Your task to perform on an android device: open app "Messenger Lite" (install if not already installed) Image 0: 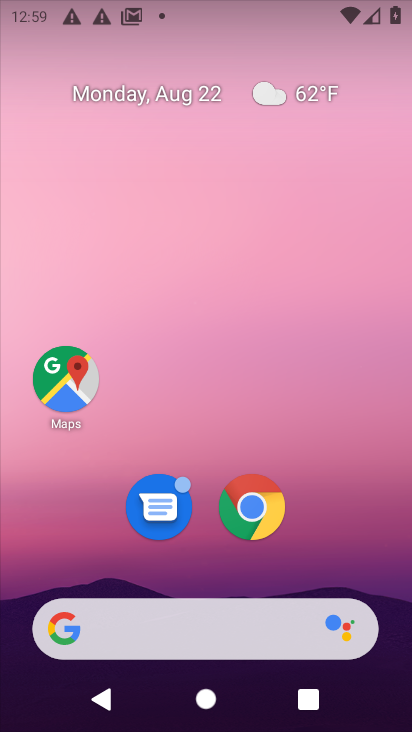
Step 0: drag from (380, 596) to (359, 167)
Your task to perform on an android device: open app "Messenger Lite" (install if not already installed) Image 1: 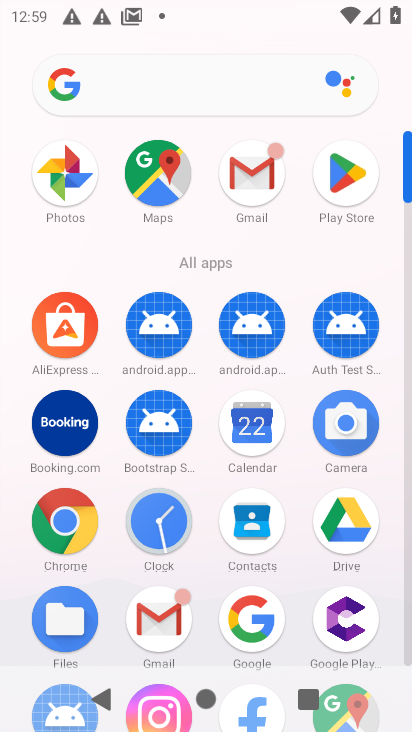
Step 1: click (408, 619)
Your task to perform on an android device: open app "Messenger Lite" (install if not already installed) Image 2: 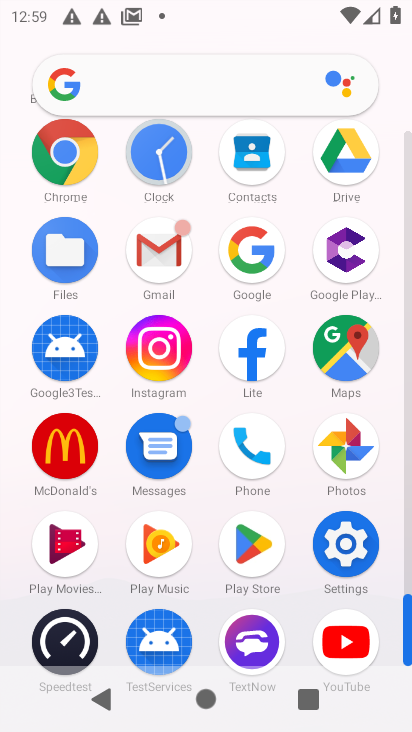
Step 2: click (258, 546)
Your task to perform on an android device: open app "Messenger Lite" (install if not already installed) Image 3: 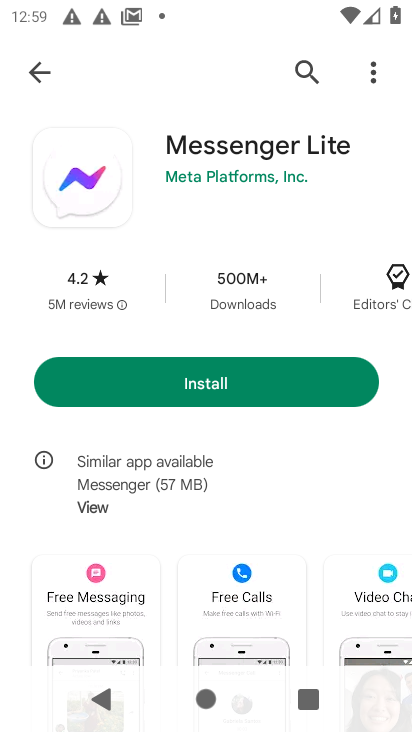
Step 3: click (301, 67)
Your task to perform on an android device: open app "Messenger Lite" (install if not already installed) Image 4: 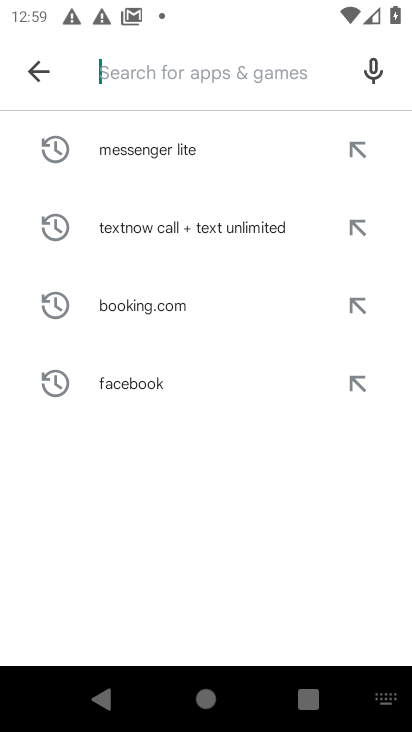
Step 4: type "Messenger Lite"
Your task to perform on an android device: open app "Messenger Lite" (install if not already installed) Image 5: 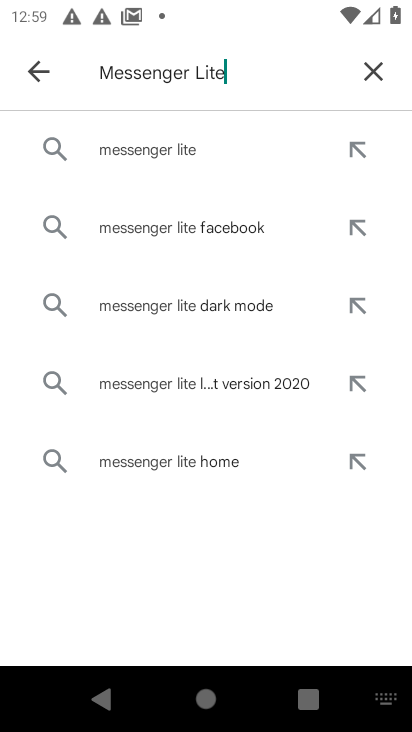
Step 5: click (145, 153)
Your task to perform on an android device: open app "Messenger Lite" (install if not already installed) Image 6: 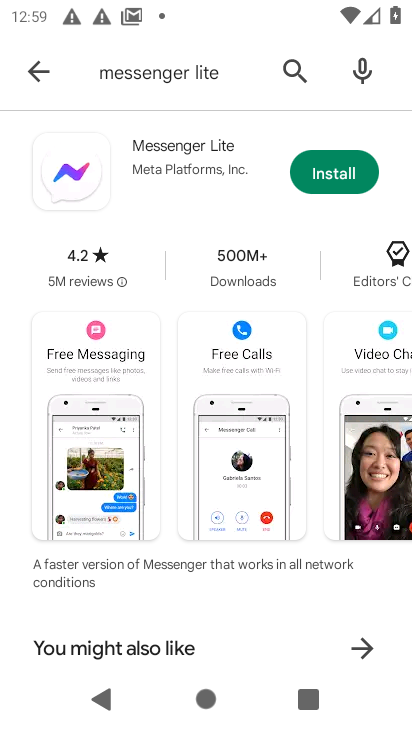
Step 6: click (341, 173)
Your task to perform on an android device: open app "Messenger Lite" (install if not already installed) Image 7: 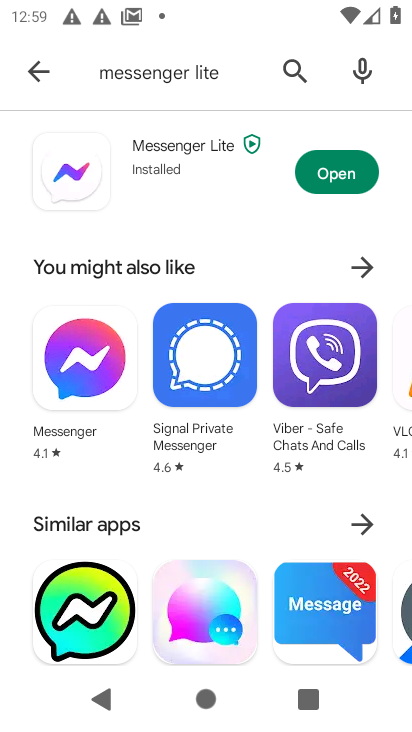
Step 7: click (339, 174)
Your task to perform on an android device: open app "Messenger Lite" (install if not already installed) Image 8: 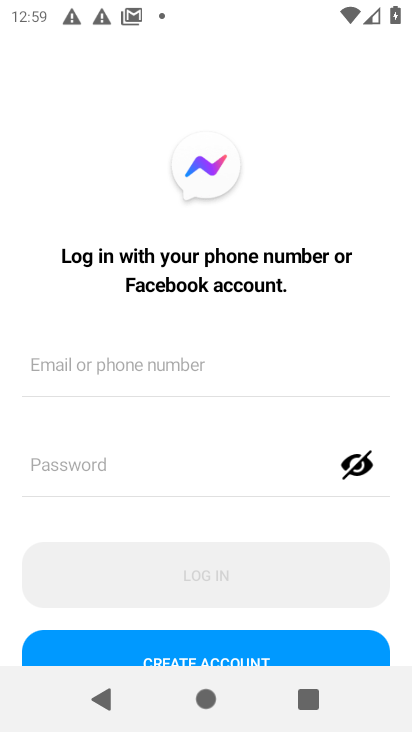
Step 8: task complete